Your task to perform on an android device: When is my next meeting? Image 0: 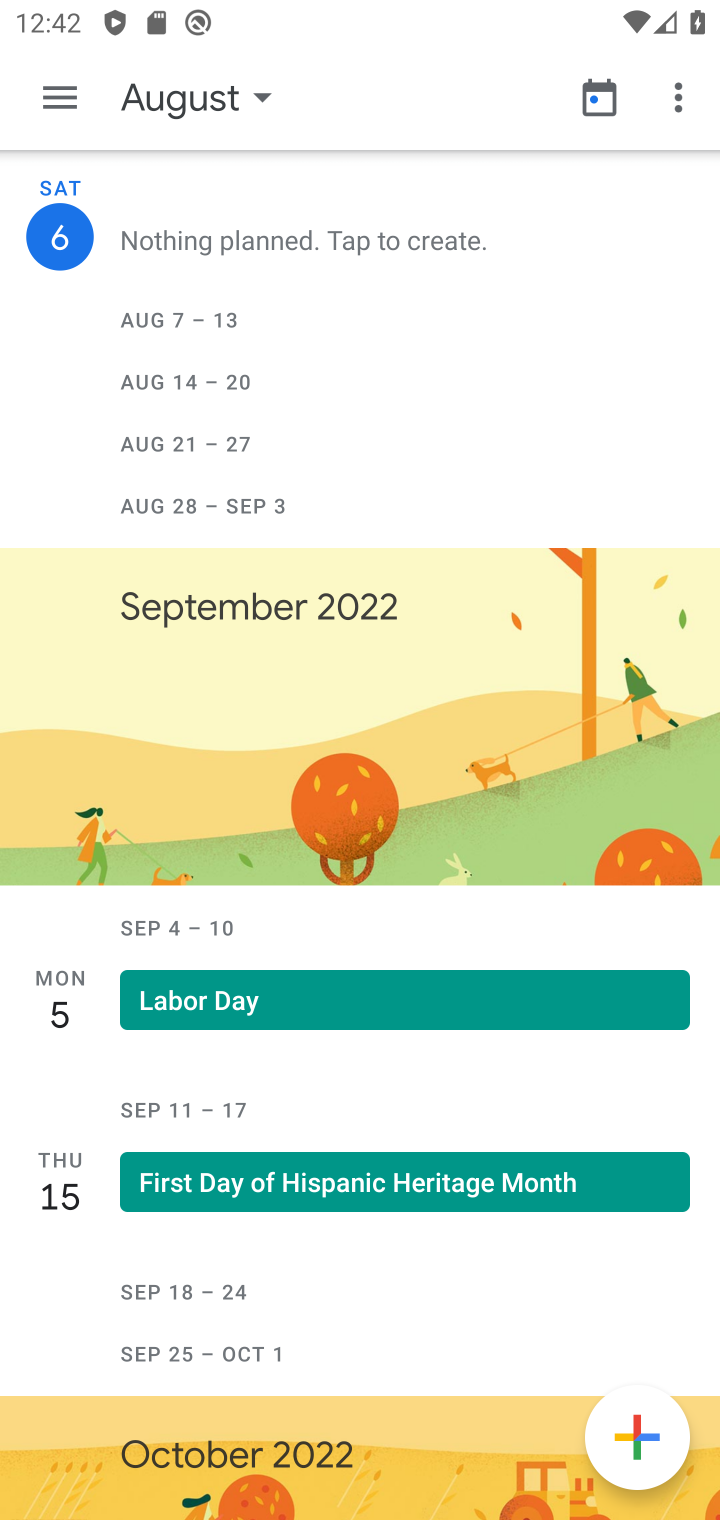
Step 0: press home button
Your task to perform on an android device: When is my next meeting? Image 1: 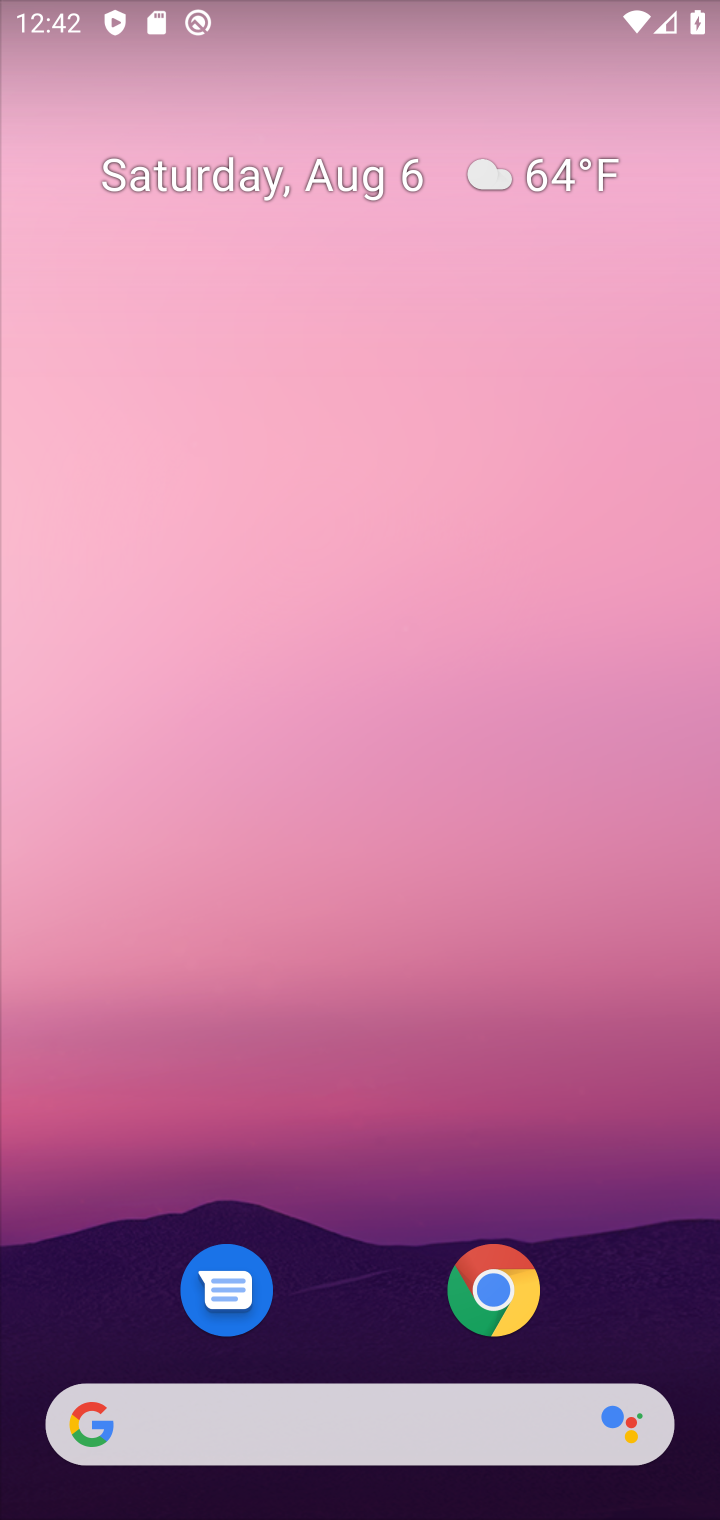
Step 1: drag from (377, 1375) to (263, 271)
Your task to perform on an android device: When is my next meeting? Image 2: 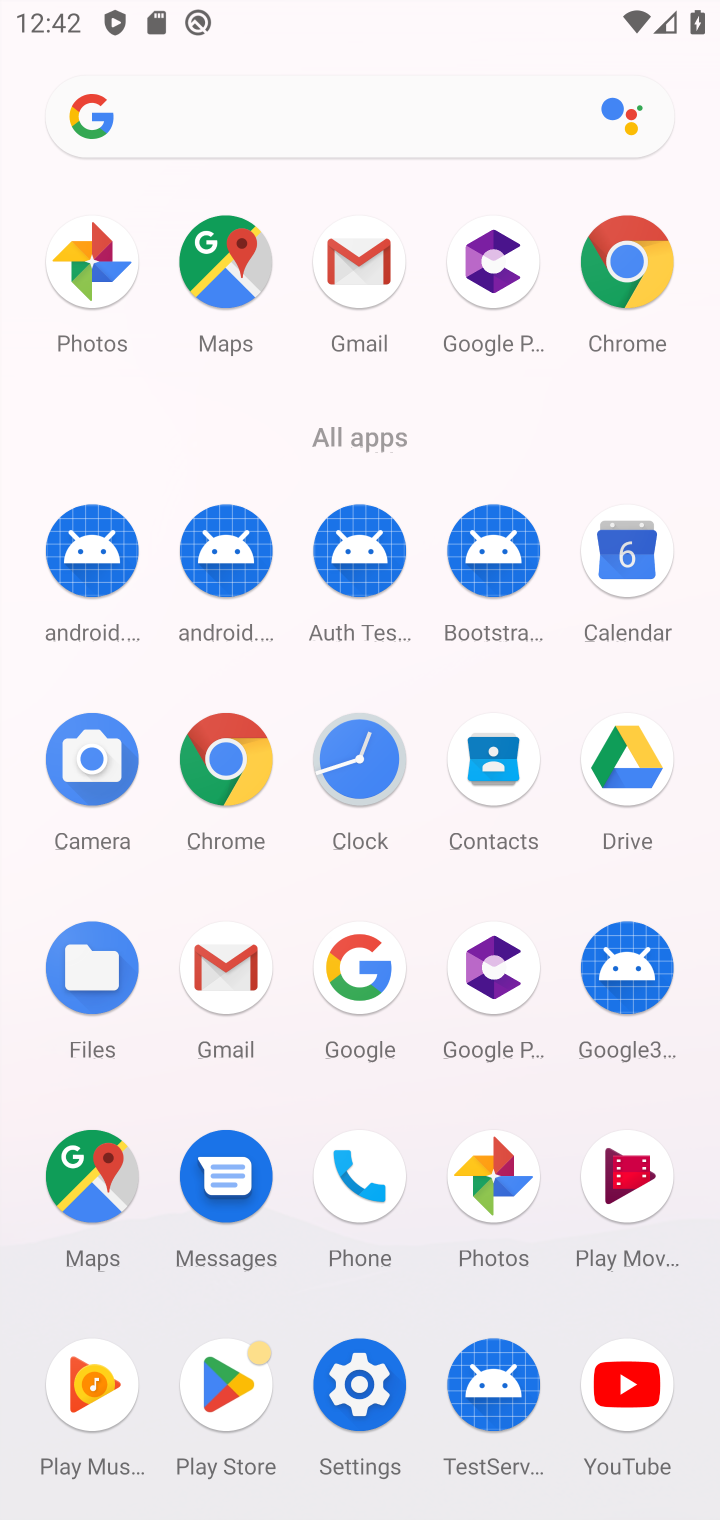
Step 2: click (636, 572)
Your task to perform on an android device: When is my next meeting? Image 3: 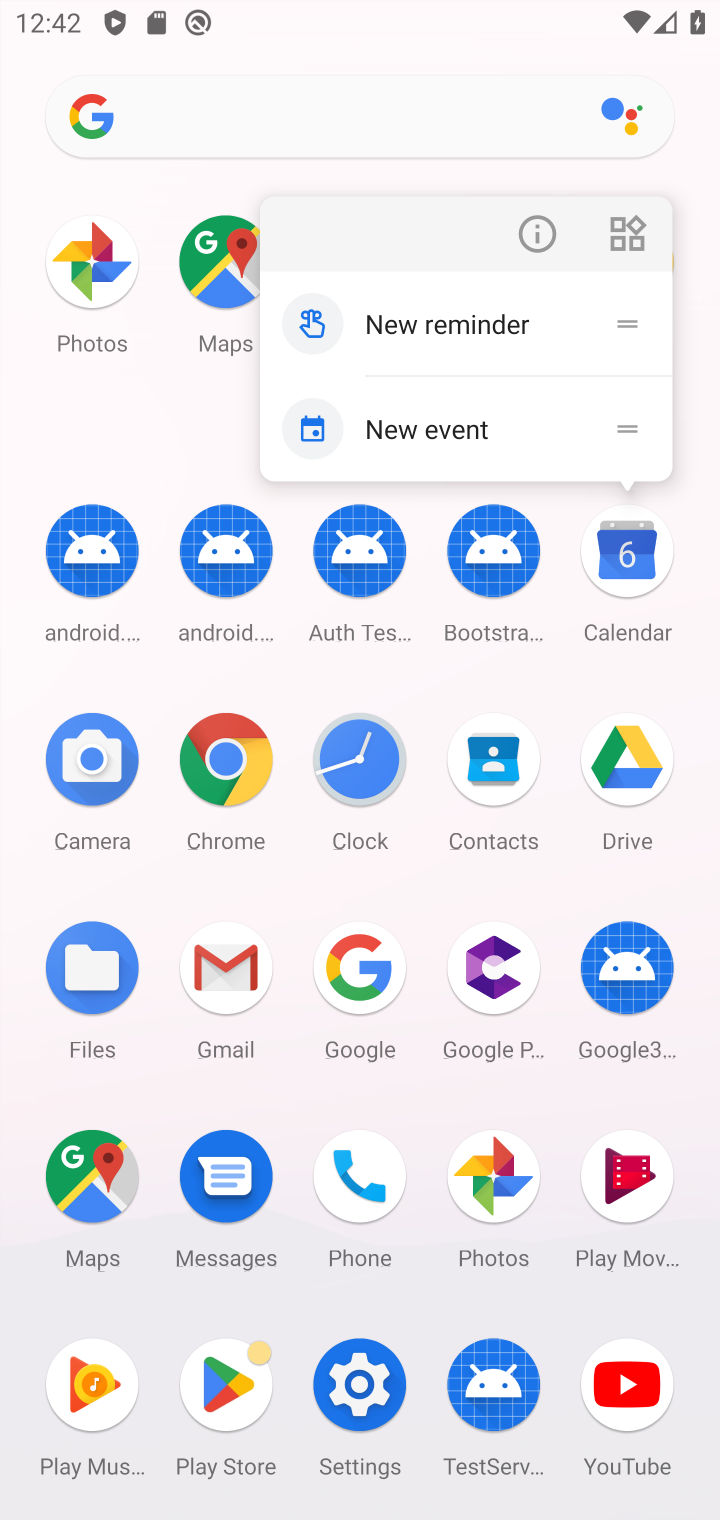
Step 3: click (640, 568)
Your task to perform on an android device: When is my next meeting? Image 4: 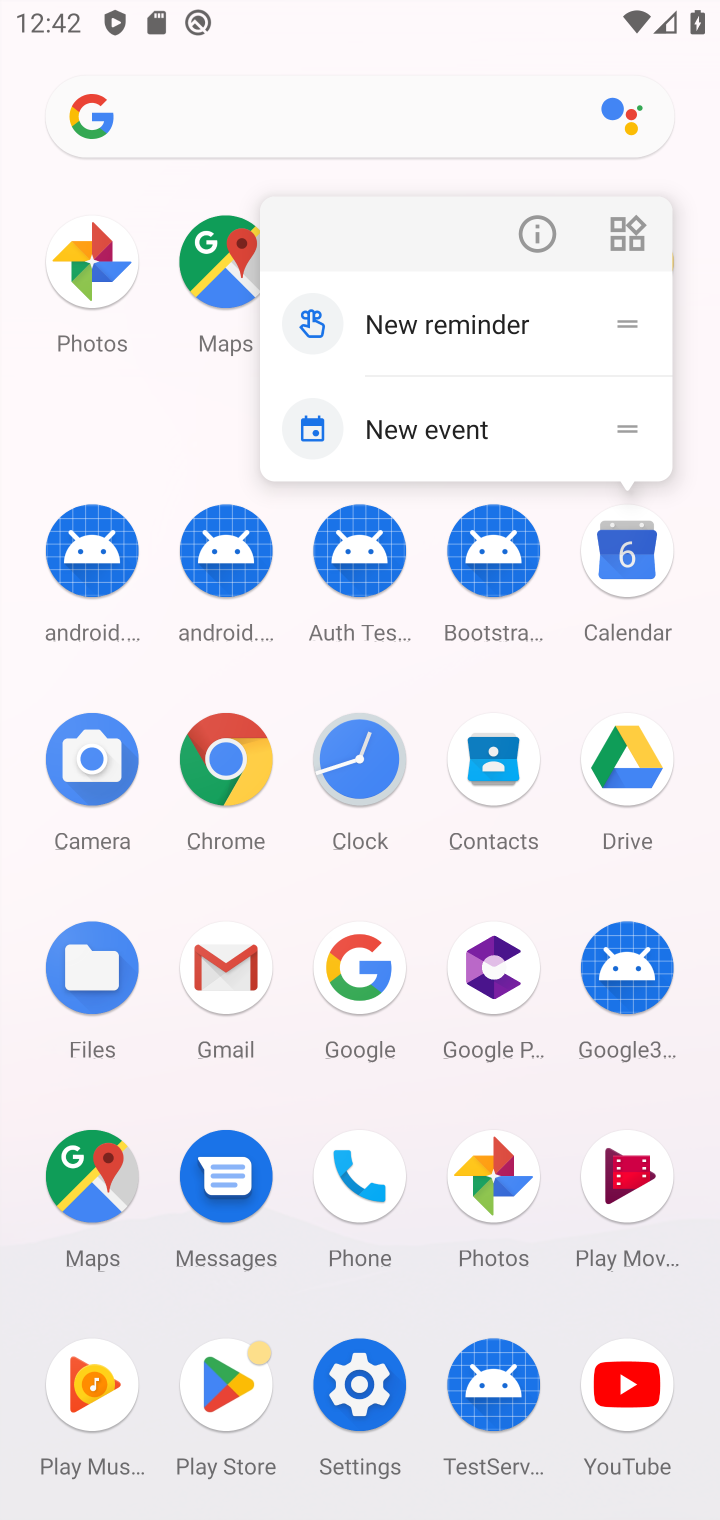
Step 4: click (640, 568)
Your task to perform on an android device: When is my next meeting? Image 5: 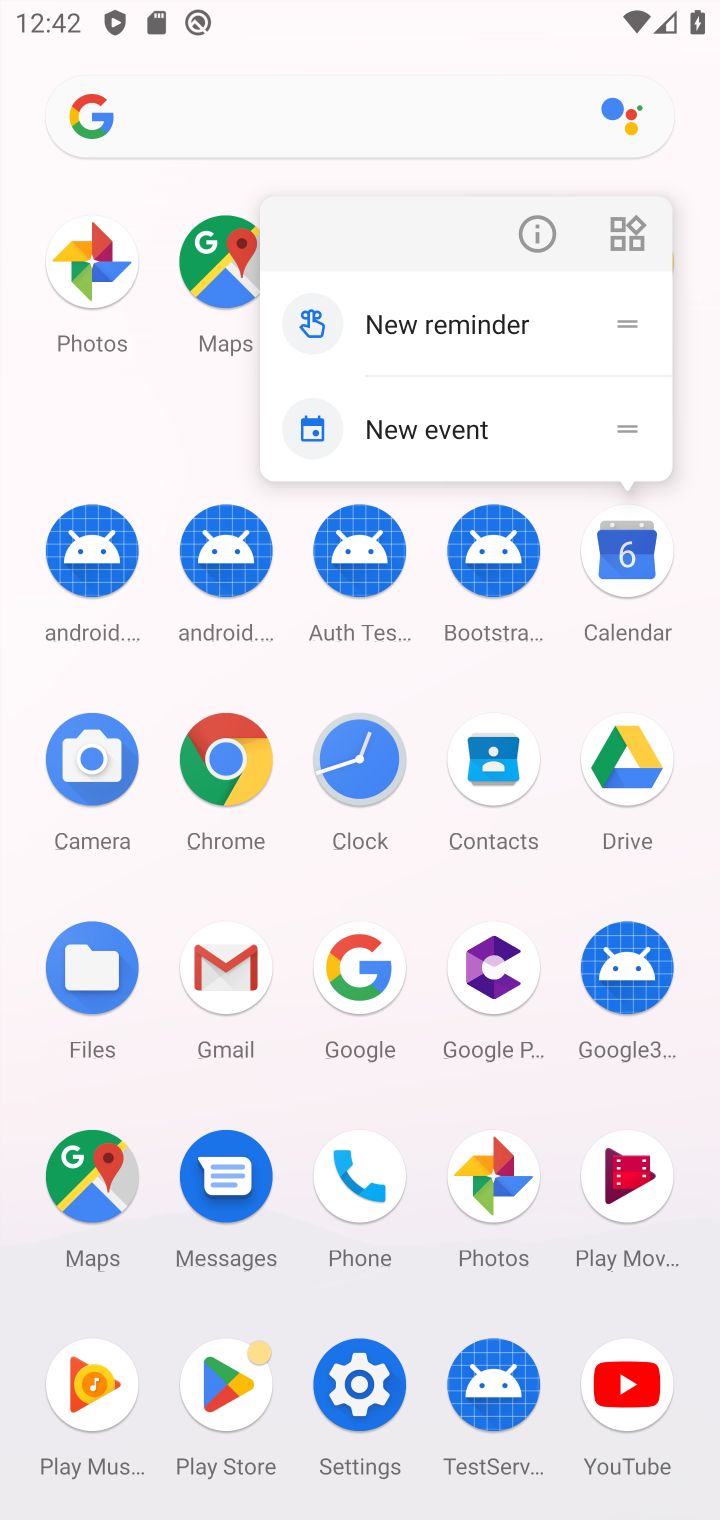
Step 5: click (640, 568)
Your task to perform on an android device: When is my next meeting? Image 6: 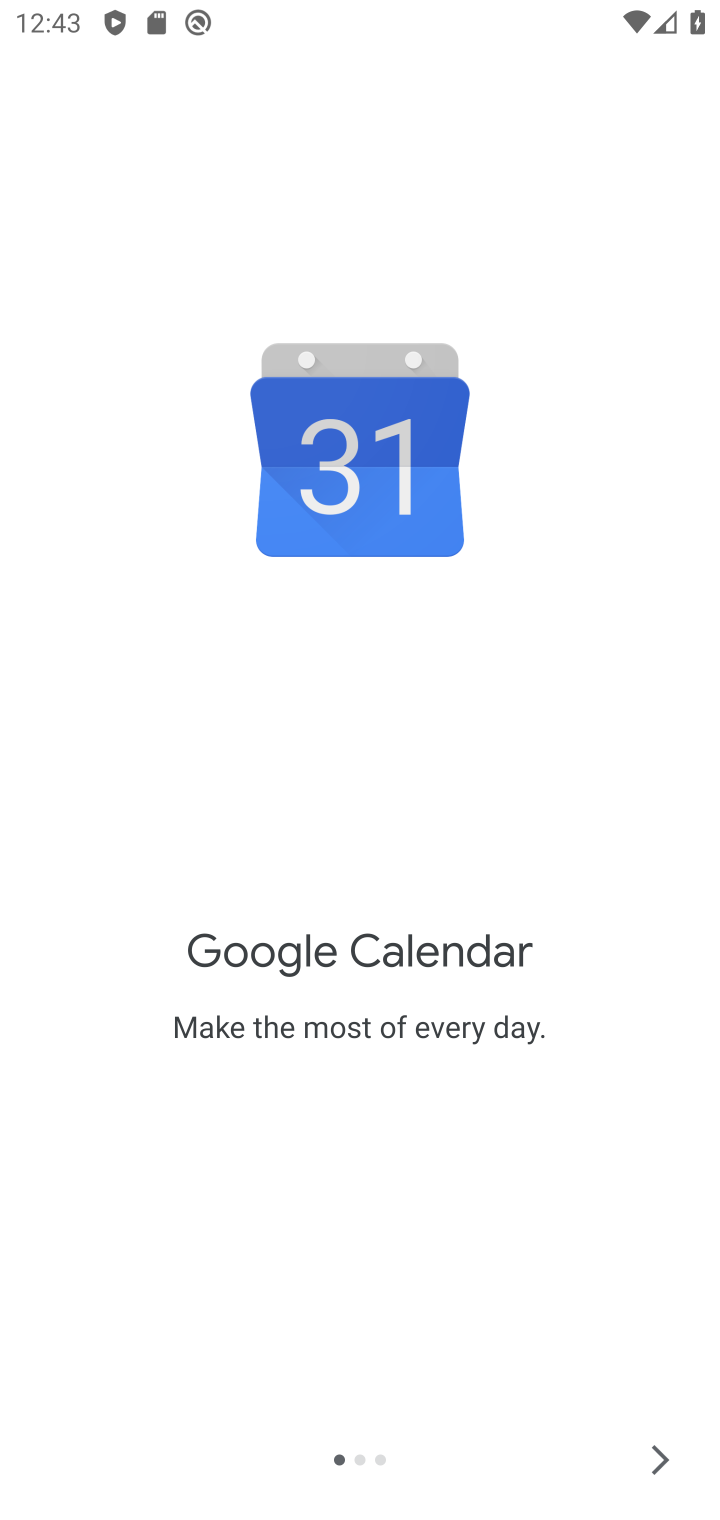
Step 6: click (666, 1455)
Your task to perform on an android device: When is my next meeting? Image 7: 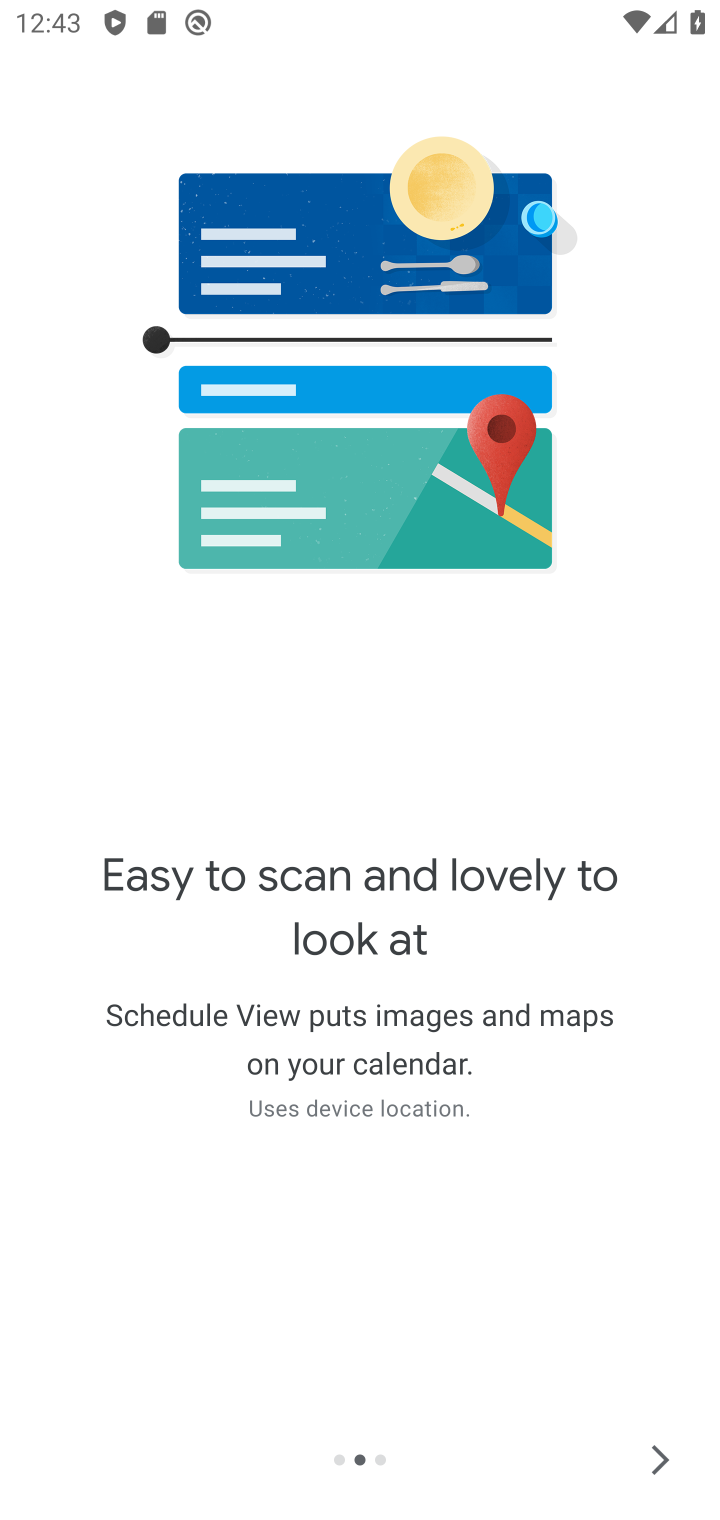
Step 7: click (668, 1465)
Your task to perform on an android device: When is my next meeting? Image 8: 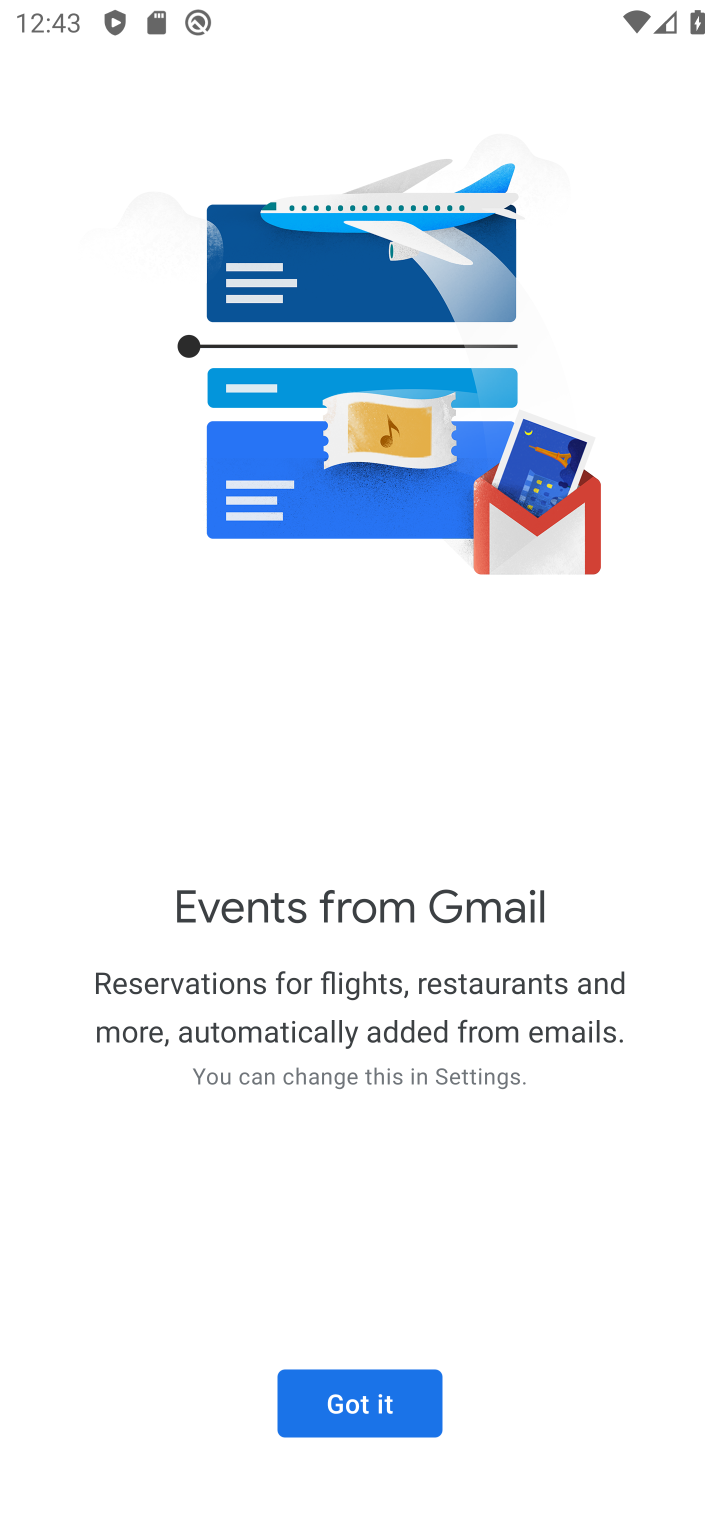
Step 8: click (291, 1397)
Your task to perform on an android device: When is my next meeting? Image 9: 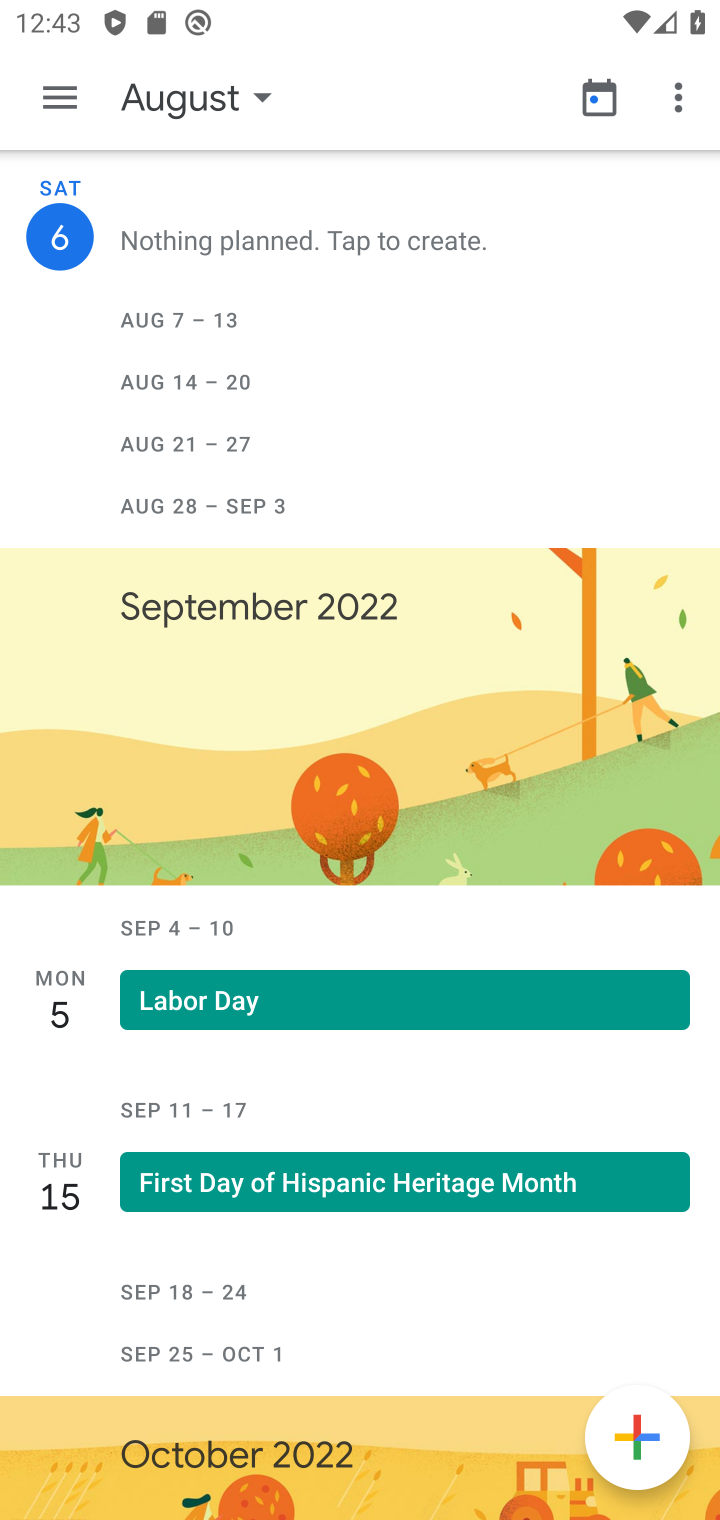
Step 9: click (64, 112)
Your task to perform on an android device: When is my next meeting? Image 10: 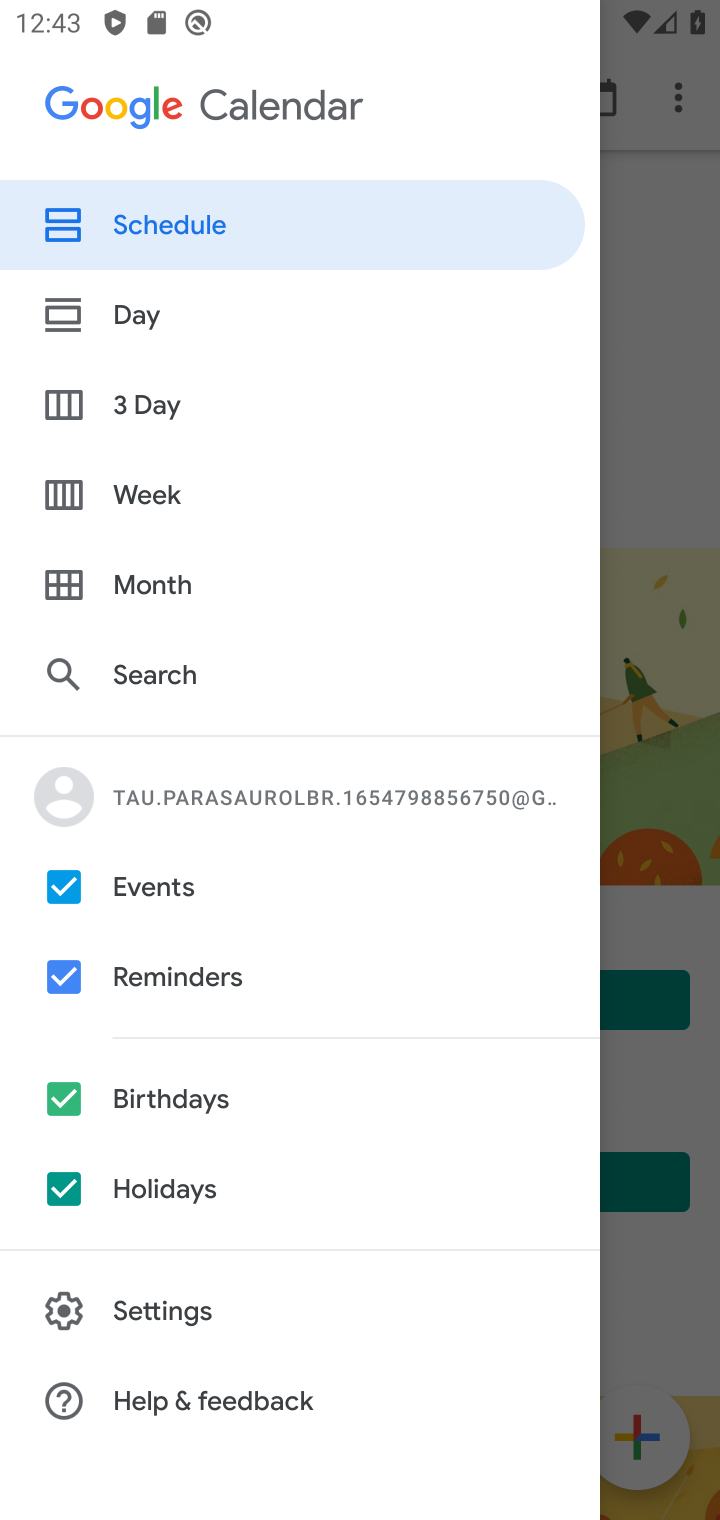
Step 10: click (158, 467)
Your task to perform on an android device: When is my next meeting? Image 11: 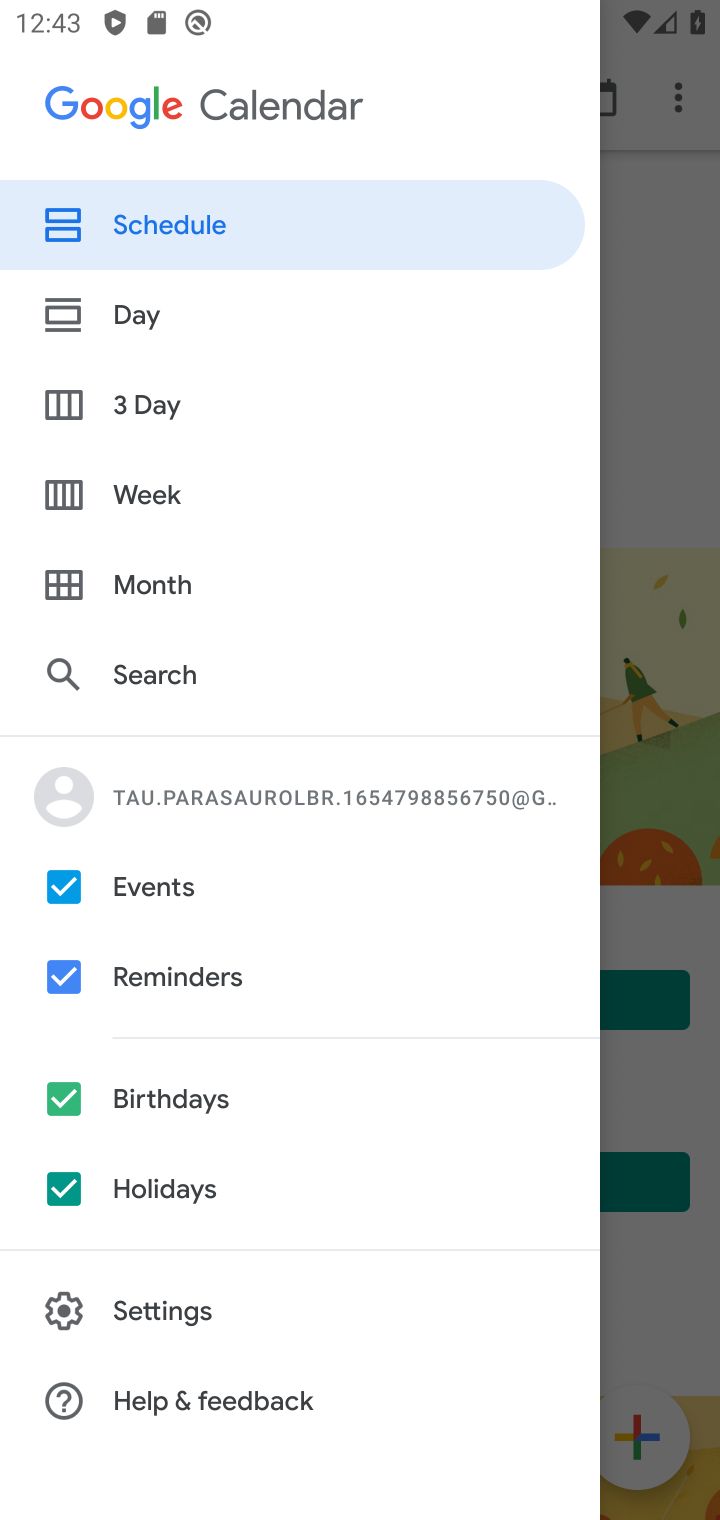
Step 11: click (113, 510)
Your task to perform on an android device: When is my next meeting? Image 12: 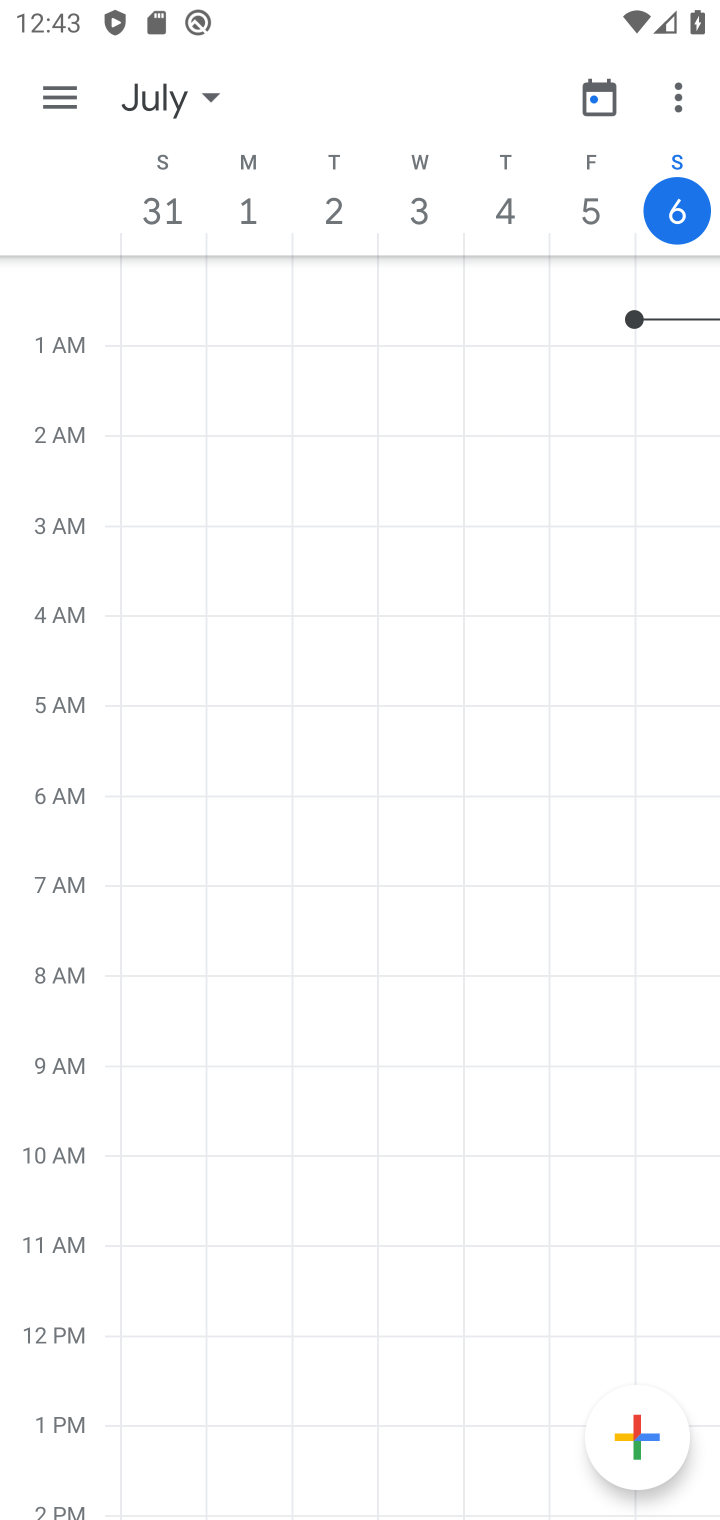
Step 12: task complete